Your task to perform on an android device: Search for sushi restaurants on Maps Image 0: 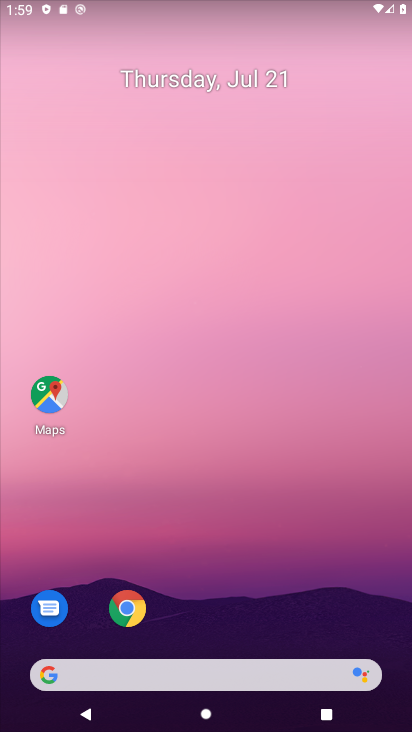
Step 0: click (64, 411)
Your task to perform on an android device: Search for sushi restaurants on Maps Image 1: 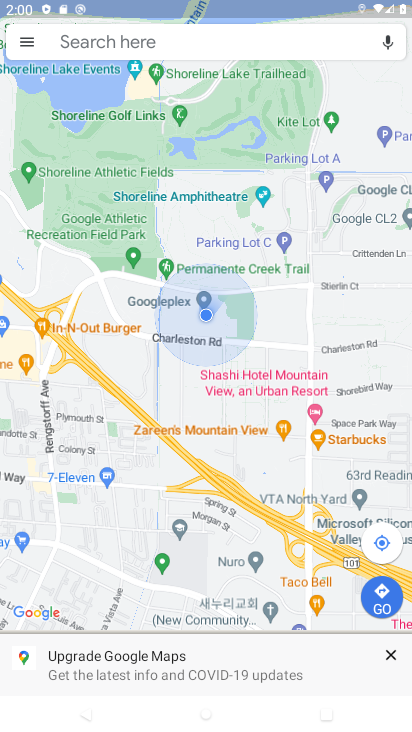
Step 1: click (106, 50)
Your task to perform on an android device: Search for sushi restaurants on Maps Image 2: 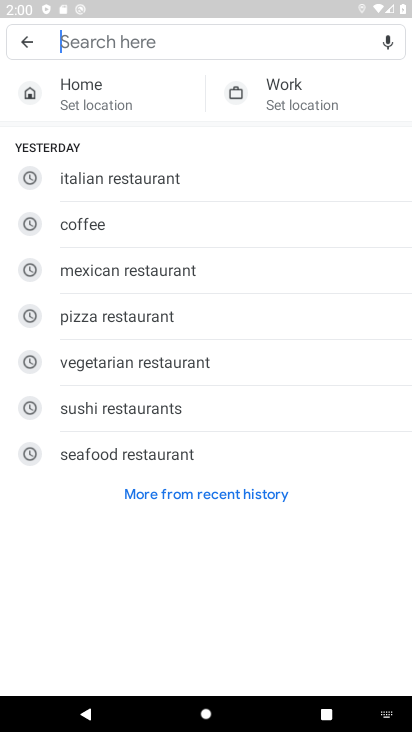
Step 2: click (124, 411)
Your task to perform on an android device: Search for sushi restaurants on Maps Image 3: 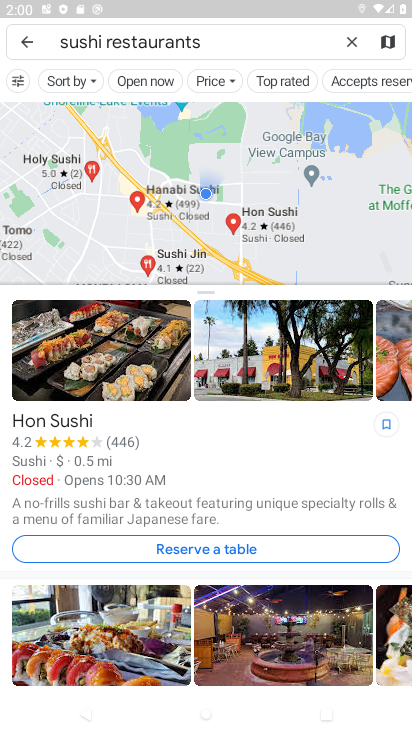
Step 3: task complete